Your task to perform on an android device: Clear the cart on target.com. Search for asus zenbook on target.com, select the first entry, and add it to the cart. Image 0: 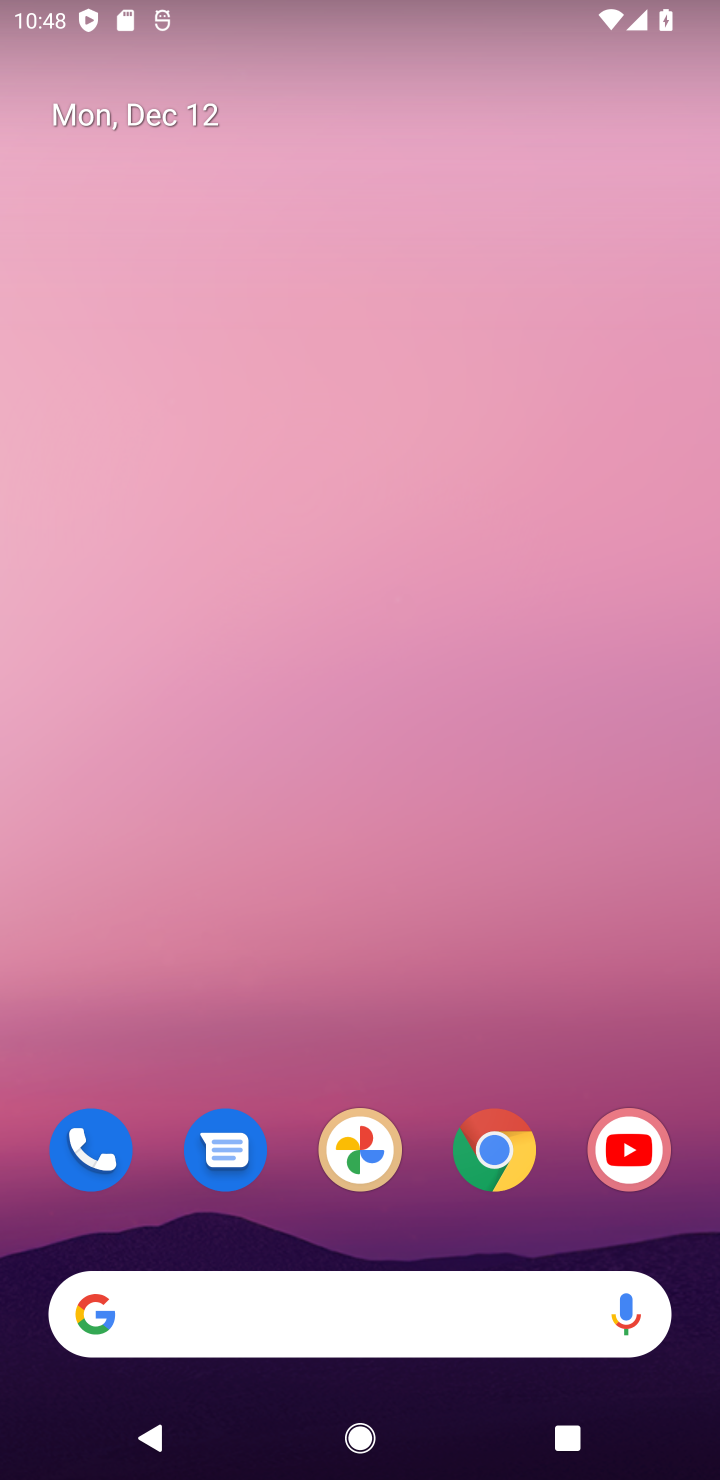
Step 0: click (511, 1159)
Your task to perform on an android device: Clear the cart on target.com. Search for asus zenbook on target.com, select the first entry, and add it to the cart. Image 1: 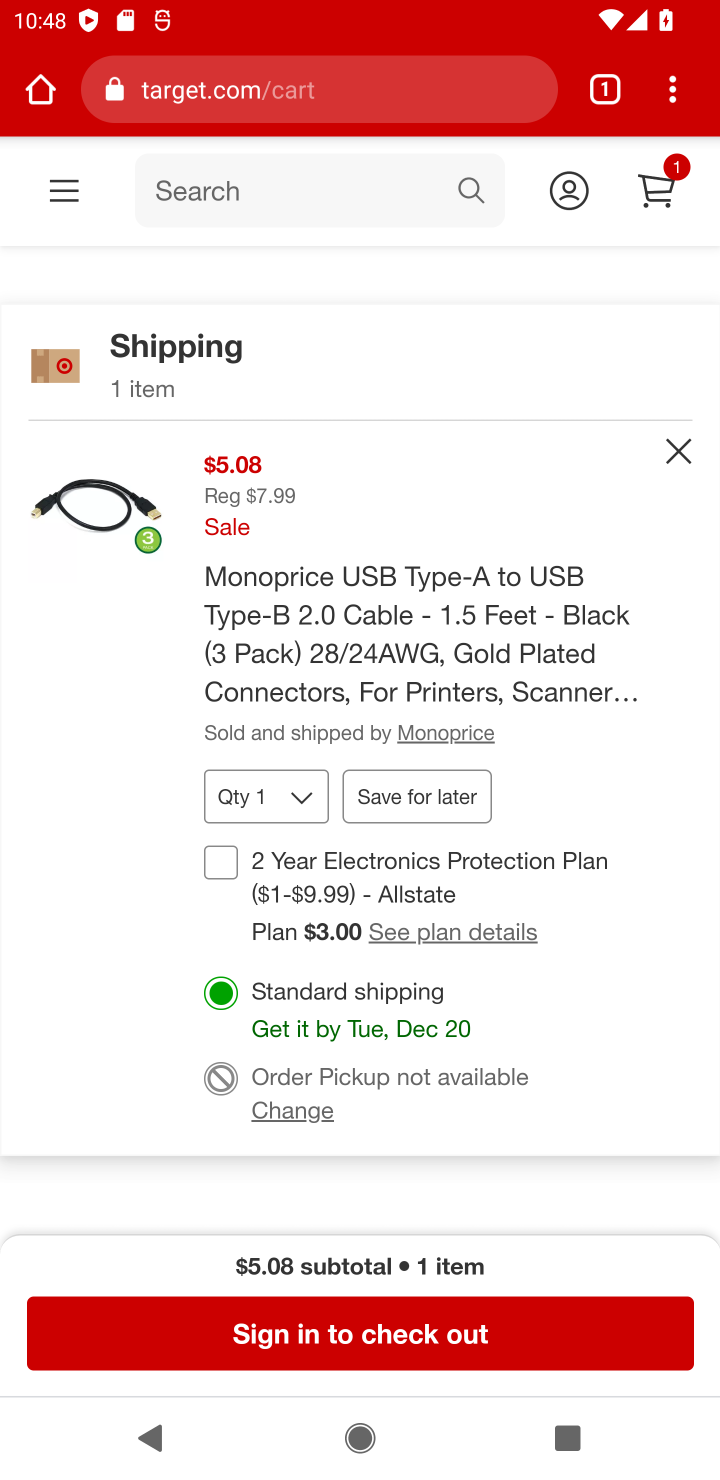
Step 1: click (665, 452)
Your task to perform on an android device: Clear the cart on target.com. Search for asus zenbook on target.com, select the first entry, and add it to the cart. Image 2: 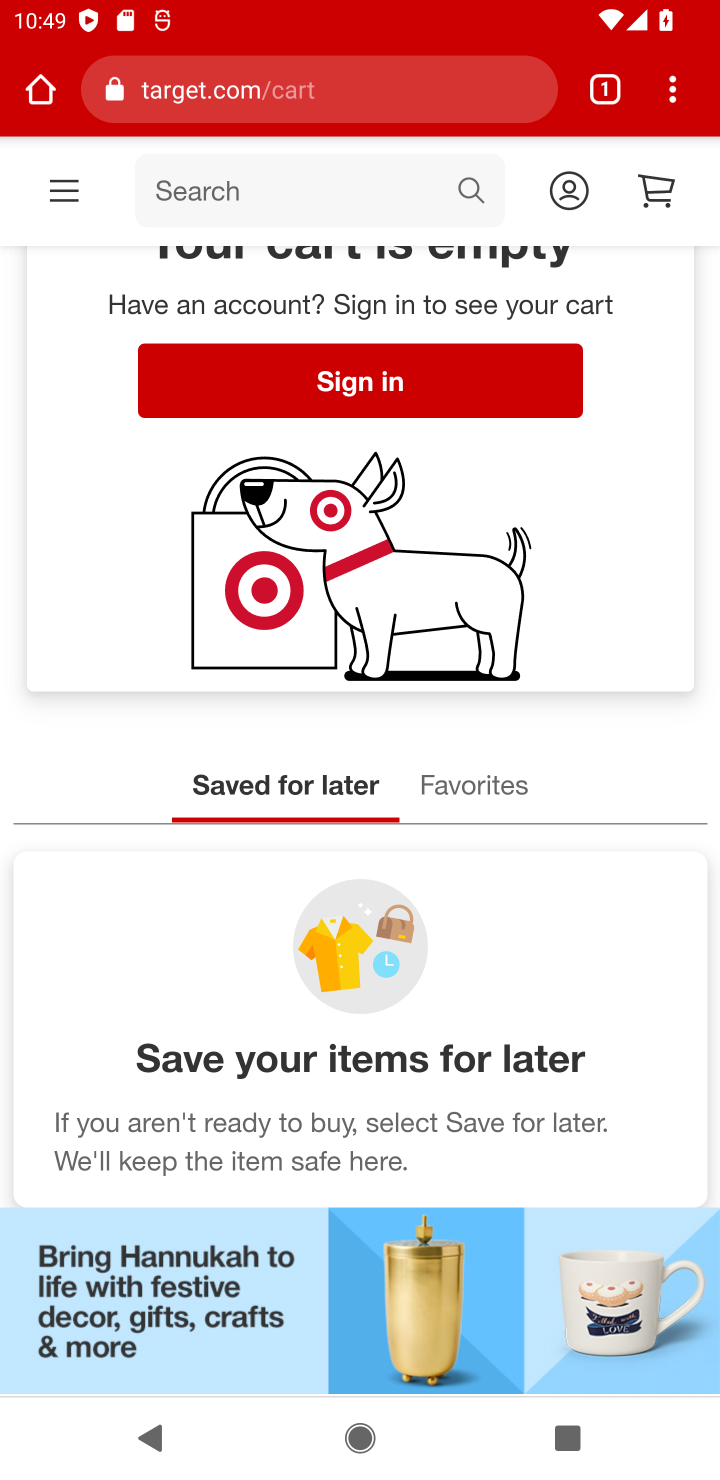
Step 2: click (225, 190)
Your task to perform on an android device: Clear the cart on target.com. Search for asus zenbook on target.com, select the first entry, and add it to the cart. Image 3: 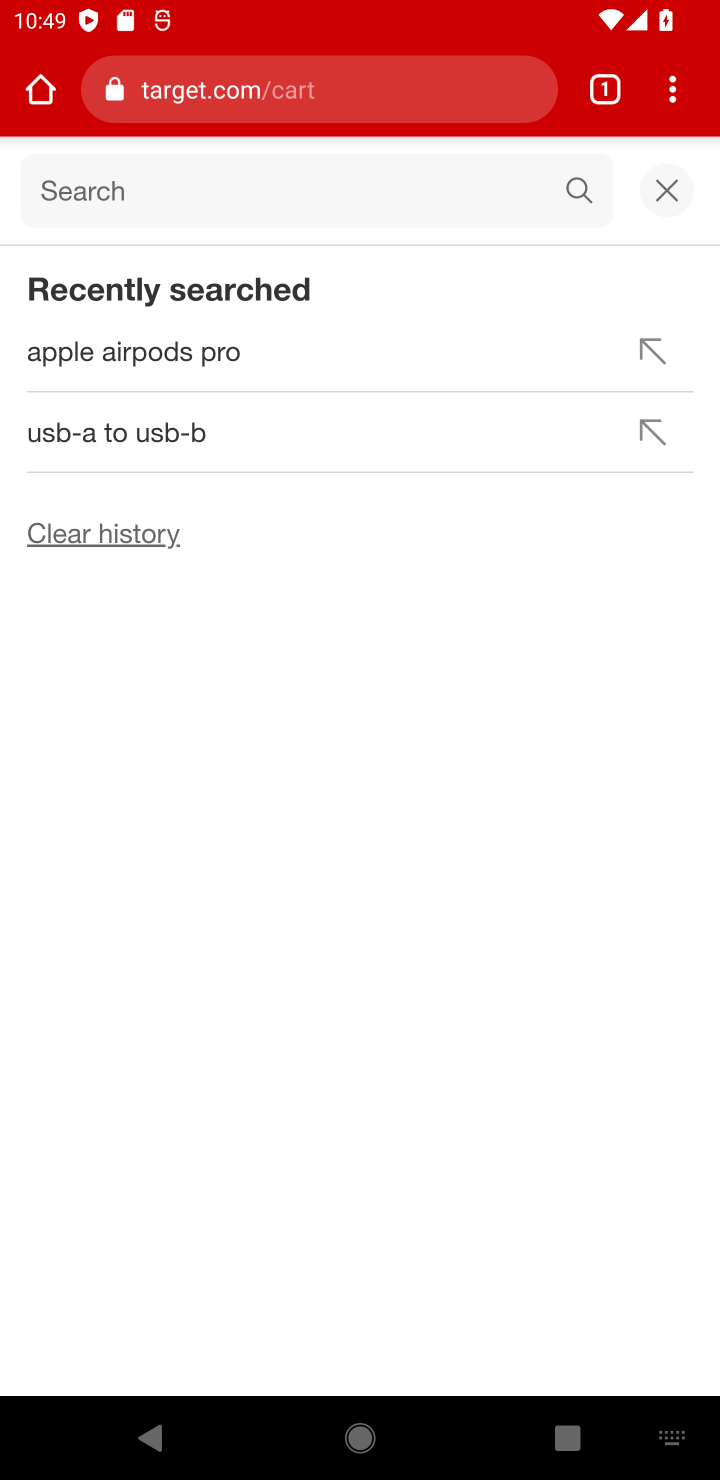
Step 3: type " asus zenbook"
Your task to perform on an android device: Clear the cart on target.com. Search for asus zenbook on target.com, select the first entry, and add it to the cart. Image 4: 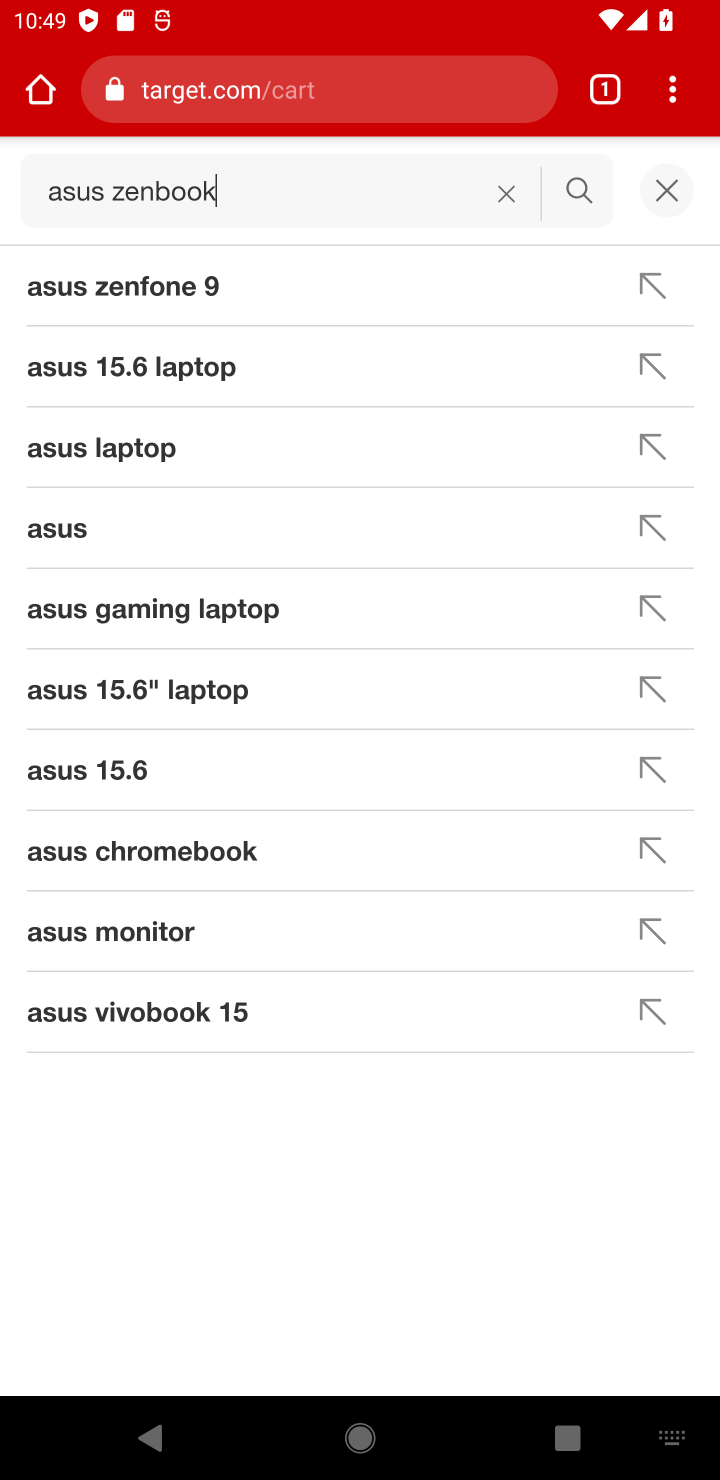
Step 4: click (571, 191)
Your task to perform on an android device: Clear the cart on target.com. Search for asus zenbook on target.com, select the first entry, and add it to the cart. Image 5: 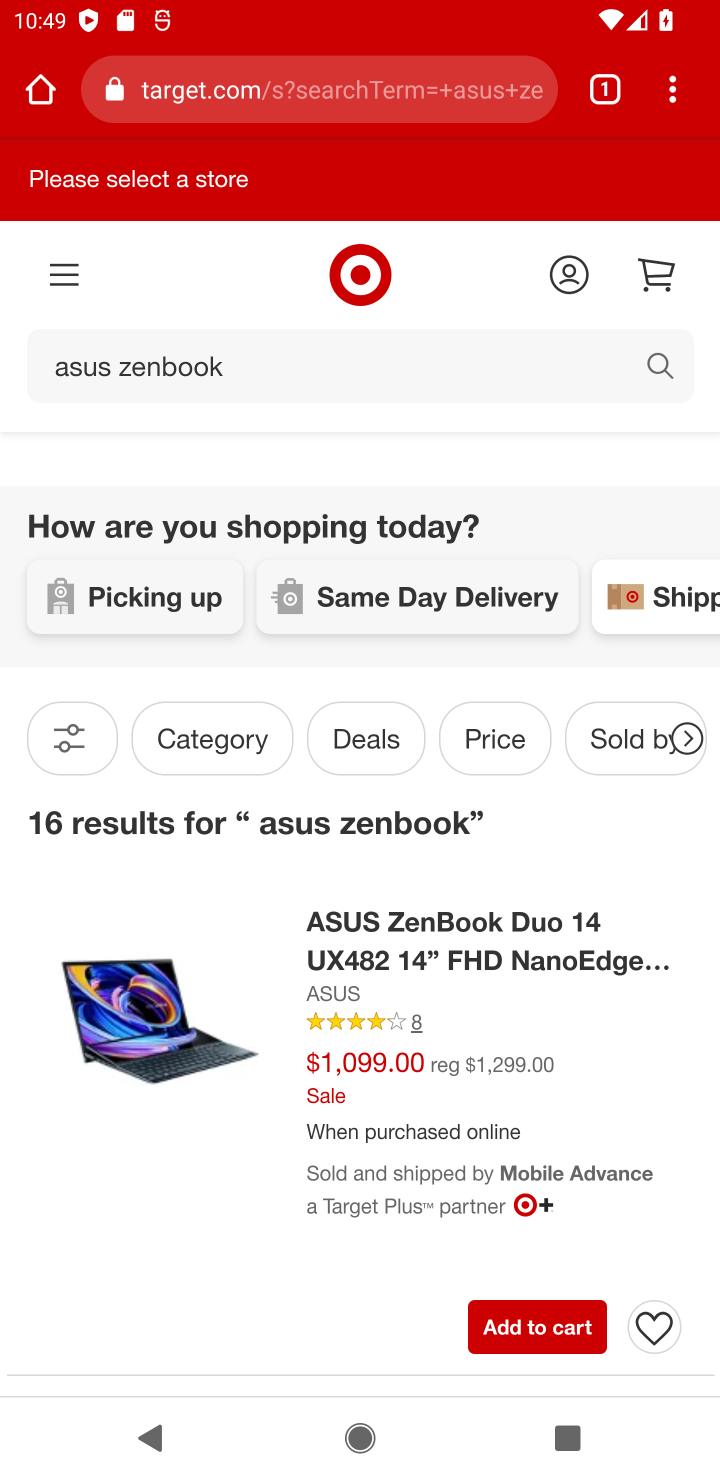
Step 5: click (536, 1334)
Your task to perform on an android device: Clear the cart on target.com. Search for asus zenbook on target.com, select the first entry, and add it to the cart. Image 6: 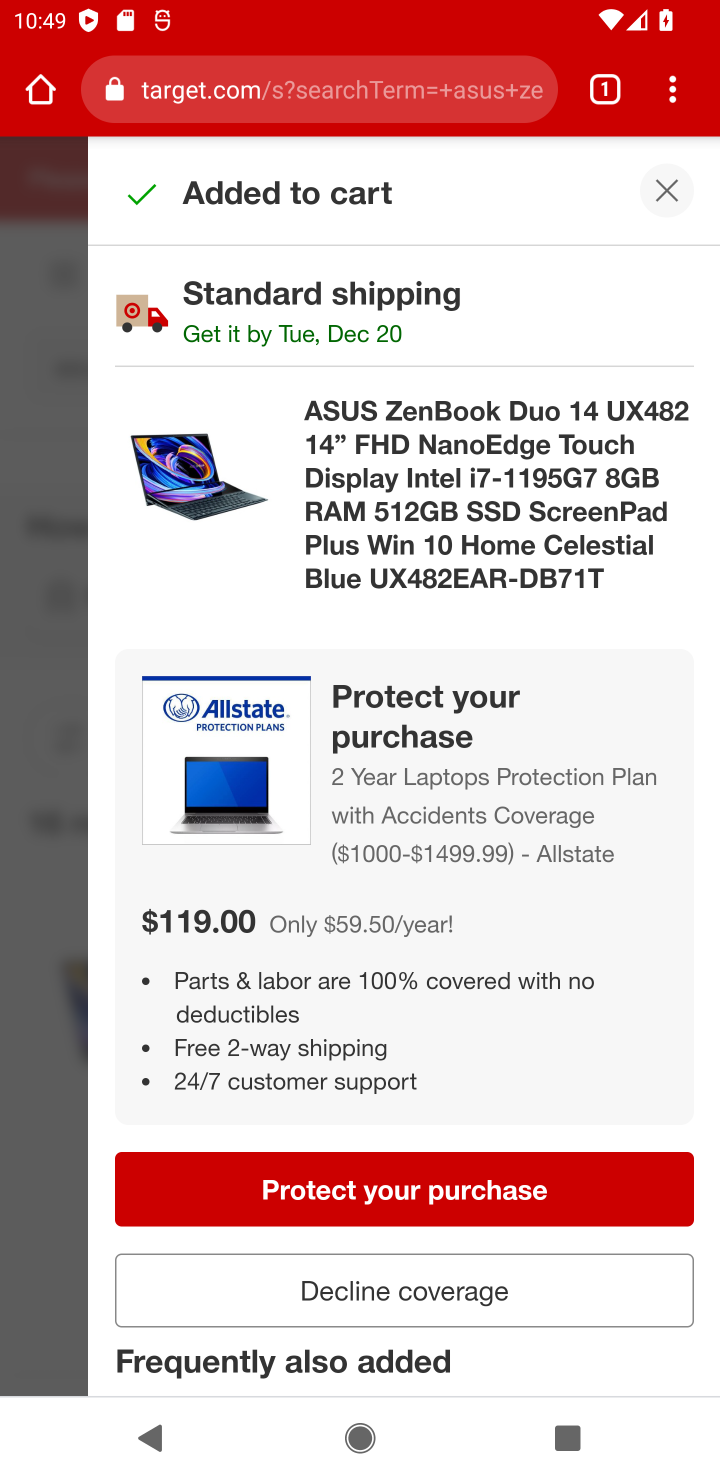
Step 6: task complete